Your task to perform on an android device: Open the phone app and click the voicemail tab. Image 0: 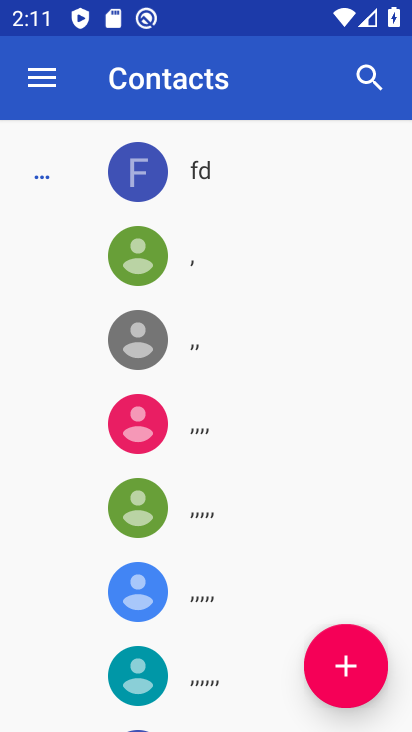
Step 0: press back button
Your task to perform on an android device: Open the phone app and click the voicemail tab. Image 1: 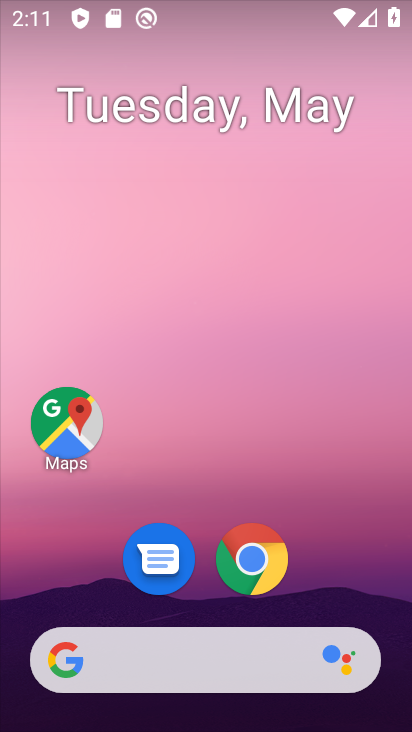
Step 1: drag from (335, 562) to (282, 113)
Your task to perform on an android device: Open the phone app and click the voicemail tab. Image 2: 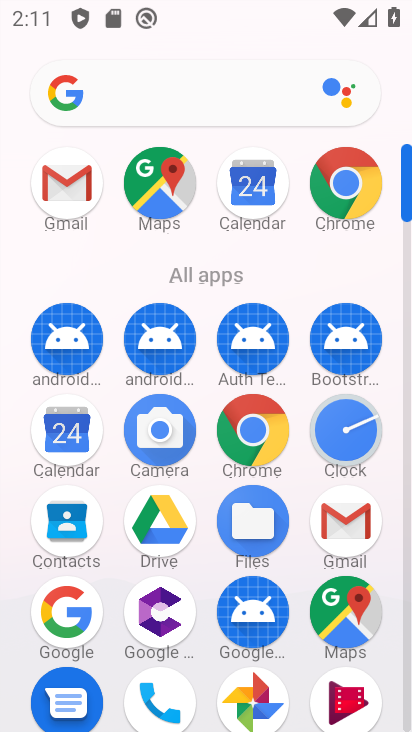
Step 2: drag from (293, 392) to (288, 223)
Your task to perform on an android device: Open the phone app and click the voicemail tab. Image 3: 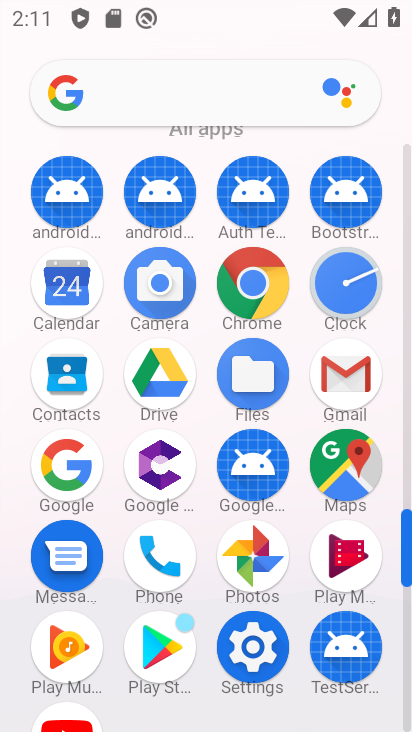
Step 3: click (157, 565)
Your task to perform on an android device: Open the phone app and click the voicemail tab. Image 4: 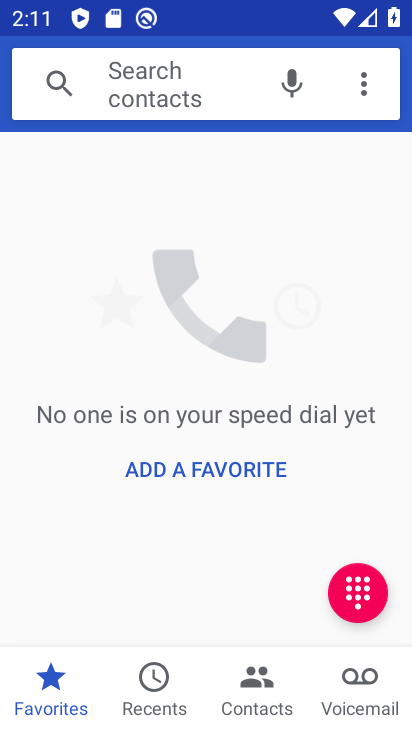
Step 4: click (360, 683)
Your task to perform on an android device: Open the phone app and click the voicemail tab. Image 5: 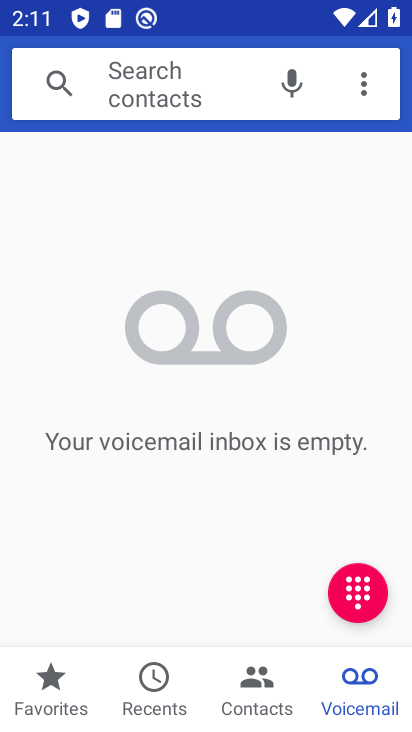
Step 5: task complete